Your task to perform on an android device: What's the weather going to be this weekend? Image 0: 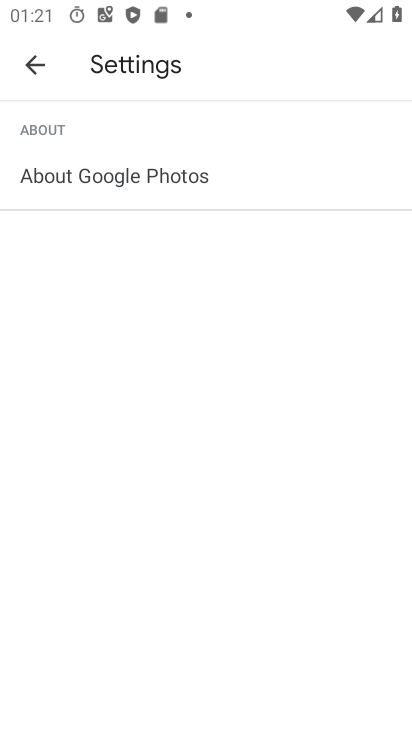
Step 0: press home button
Your task to perform on an android device: What's the weather going to be this weekend? Image 1: 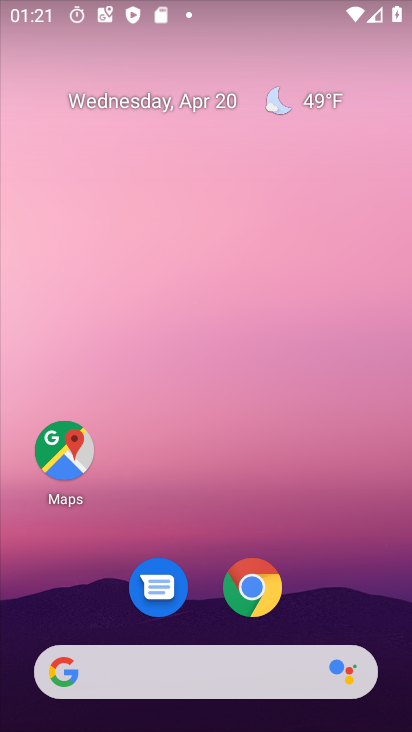
Step 1: click (325, 102)
Your task to perform on an android device: What's the weather going to be this weekend? Image 2: 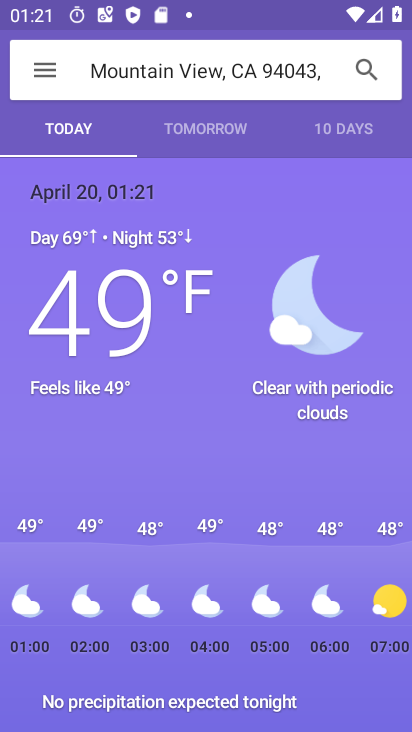
Step 2: click (323, 135)
Your task to perform on an android device: What's the weather going to be this weekend? Image 3: 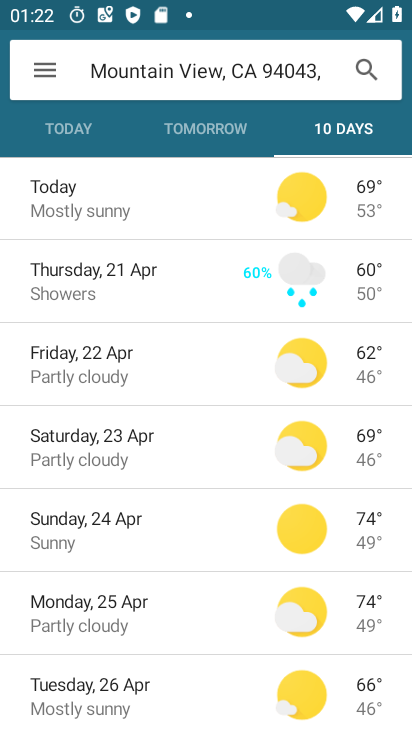
Step 3: task complete